Your task to perform on an android device: Open privacy settings Image 0: 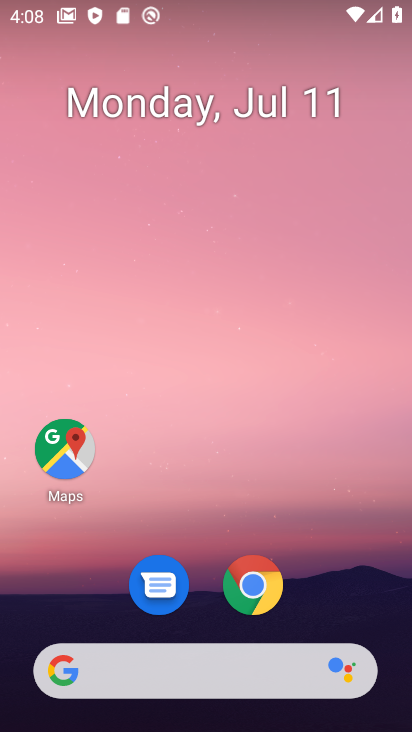
Step 0: drag from (269, 485) to (283, 38)
Your task to perform on an android device: Open privacy settings Image 1: 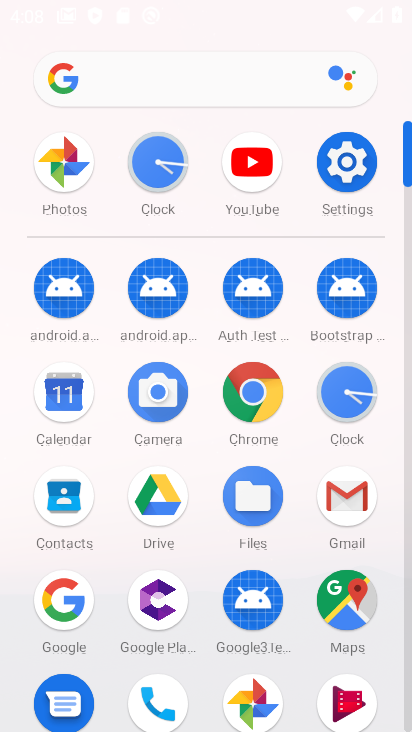
Step 1: click (361, 159)
Your task to perform on an android device: Open privacy settings Image 2: 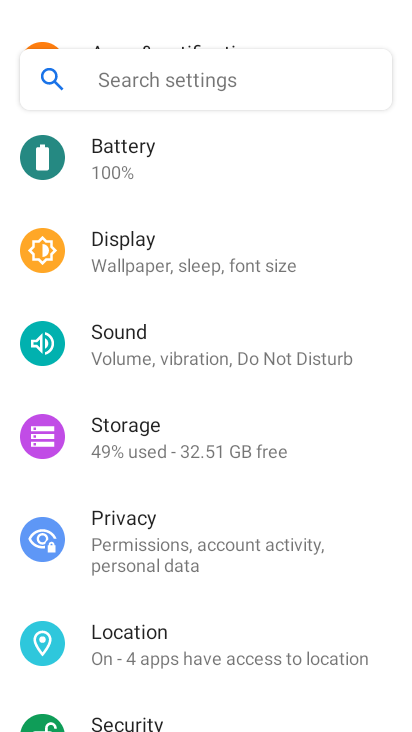
Step 2: click (165, 547)
Your task to perform on an android device: Open privacy settings Image 3: 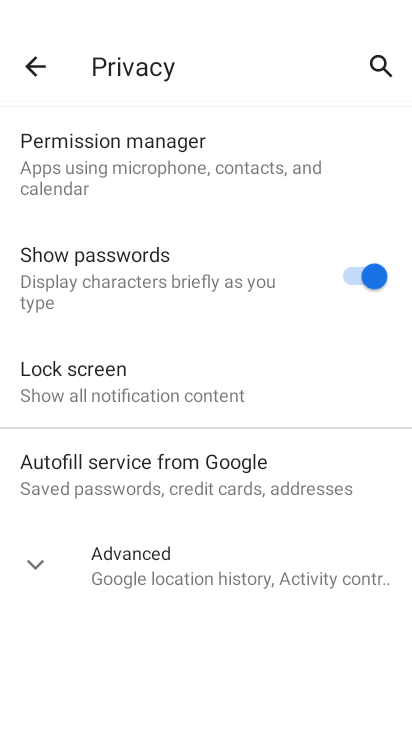
Step 3: task complete